Your task to perform on an android device: toggle wifi Image 0: 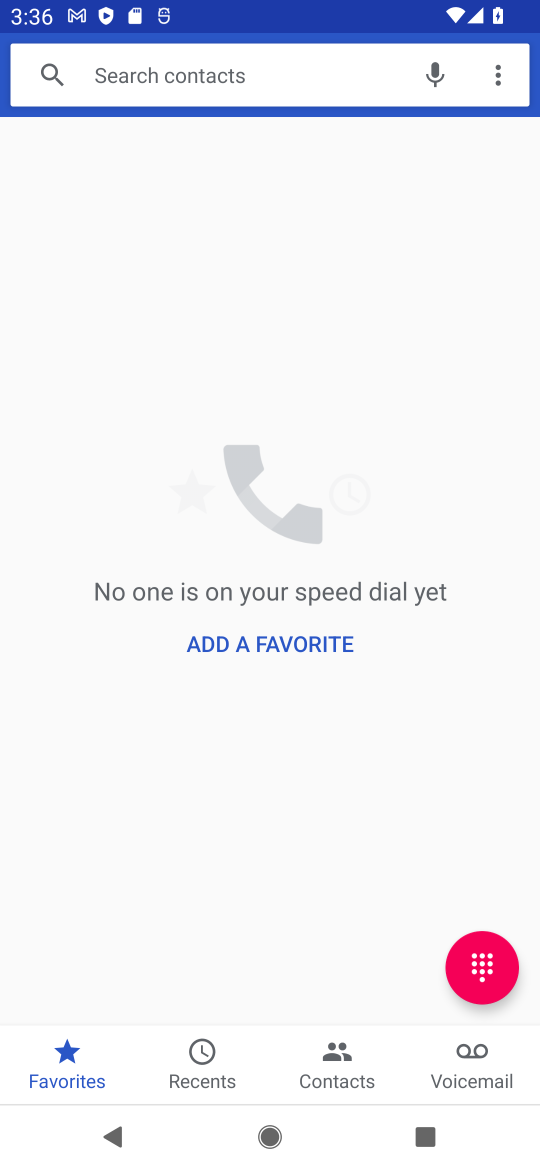
Step 0: press home button
Your task to perform on an android device: toggle wifi Image 1: 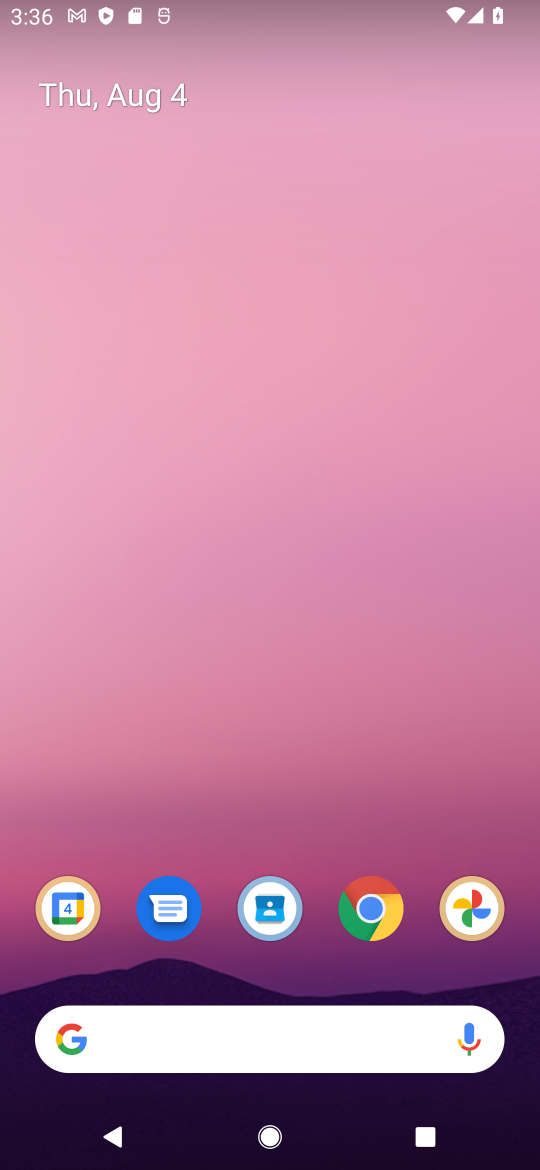
Step 1: drag from (322, 858) to (318, 0)
Your task to perform on an android device: toggle wifi Image 2: 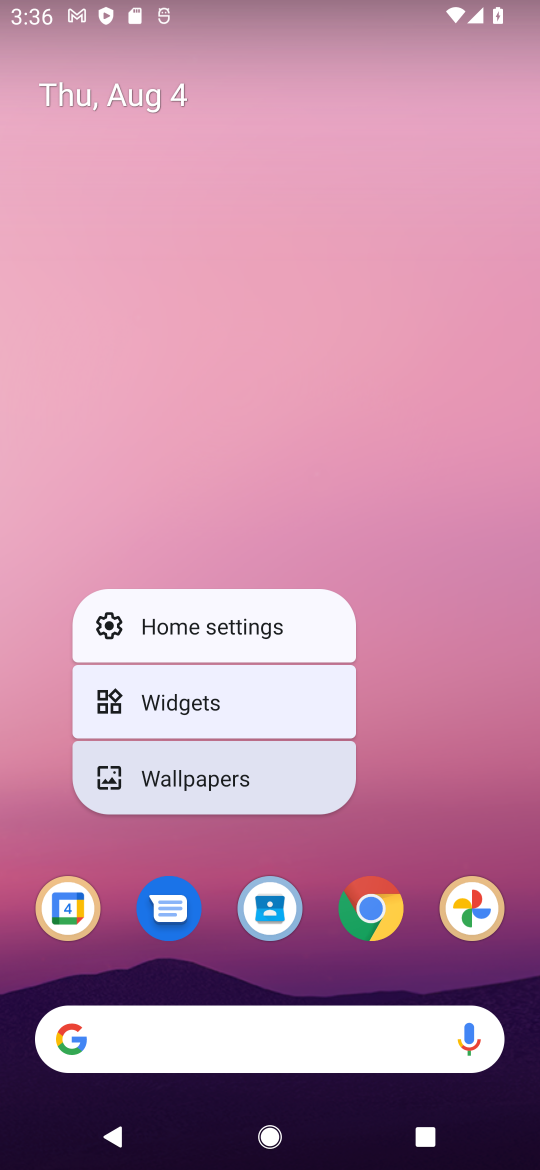
Step 2: click (401, 332)
Your task to perform on an android device: toggle wifi Image 3: 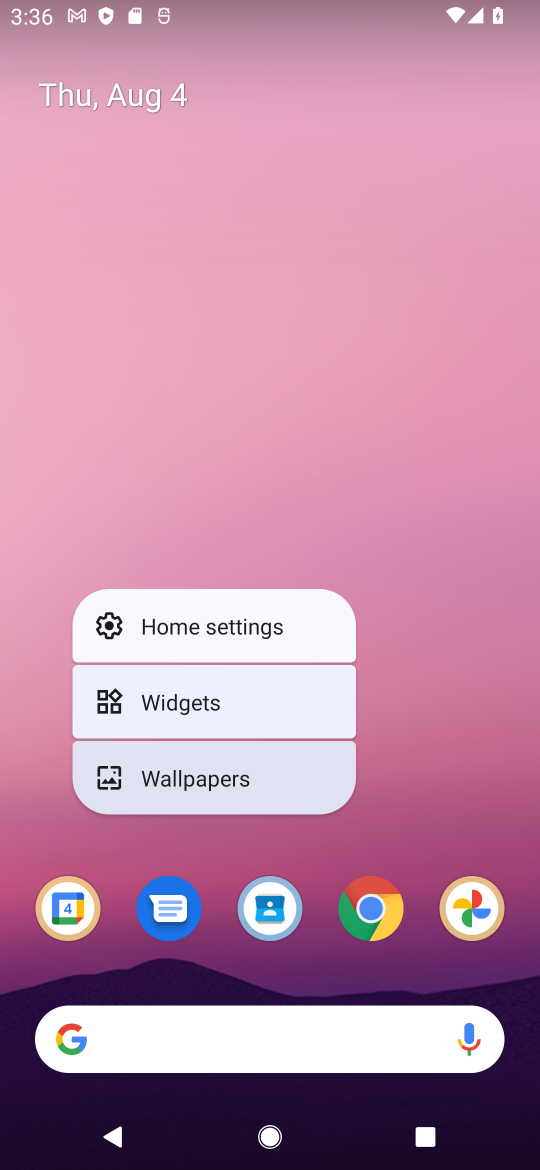
Step 3: click (401, 332)
Your task to perform on an android device: toggle wifi Image 4: 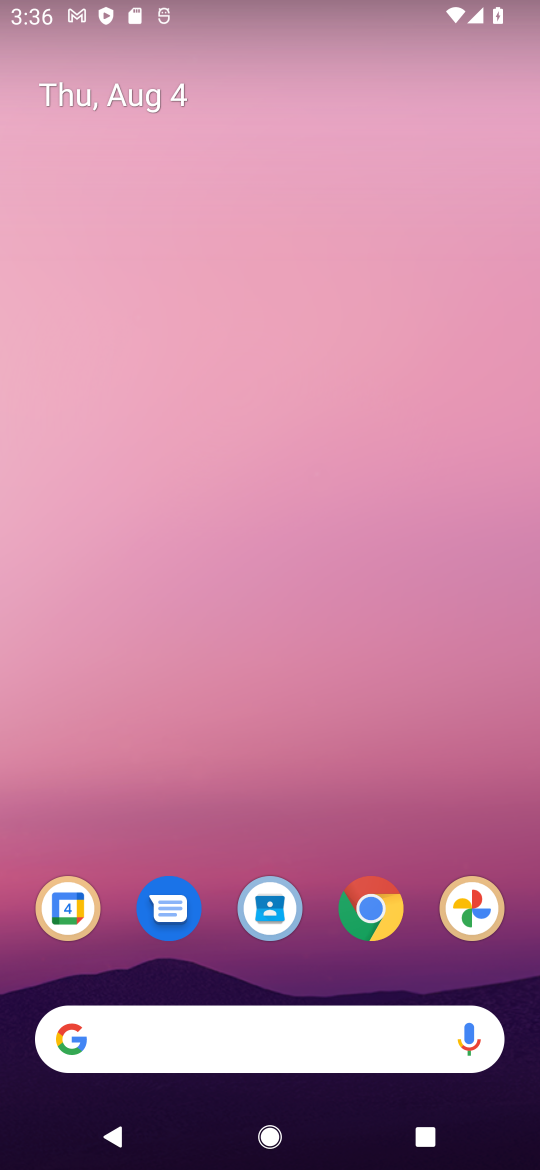
Step 4: drag from (355, 822) to (301, 213)
Your task to perform on an android device: toggle wifi Image 5: 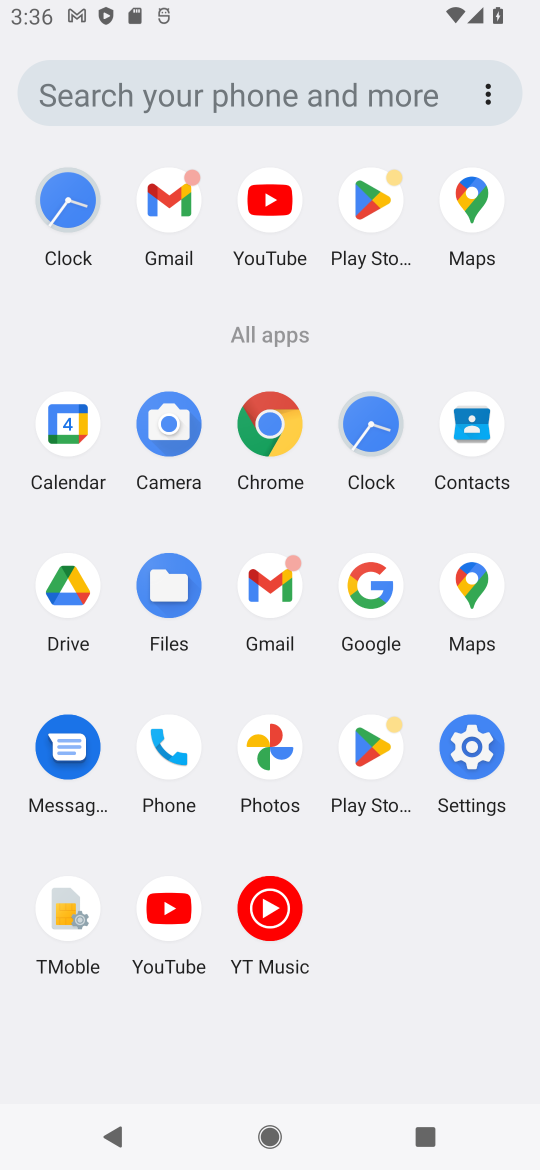
Step 5: click (455, 744)
Your task to perform on an android device: toggle wifi Image 6: 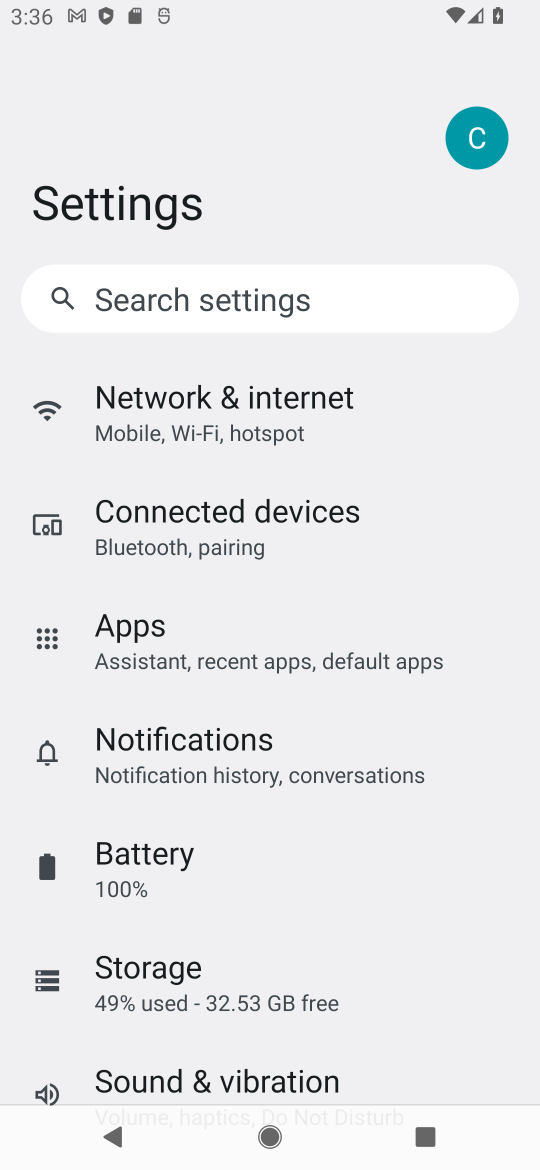
Step 6: click (289, 415)
Your task to perform on an android device: toggle wifi Image 7: 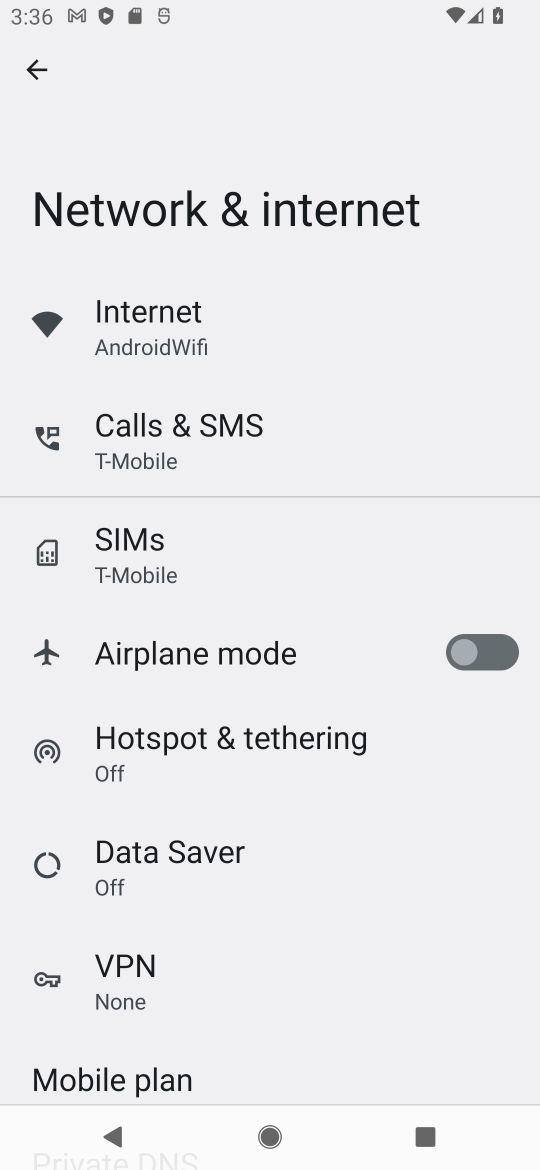
Step 7: click (317, 301)
Your task to perform on an android device: toggle wifi Image 8: 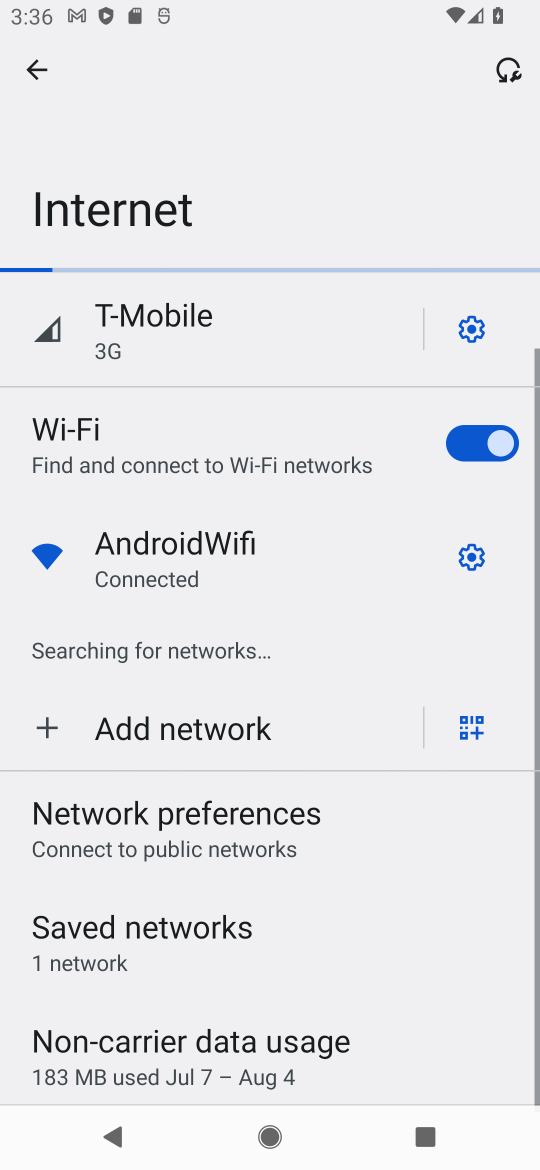
Step 8: click (471, 447)
Your task to perform on an android device: toggle wifi Image 9: 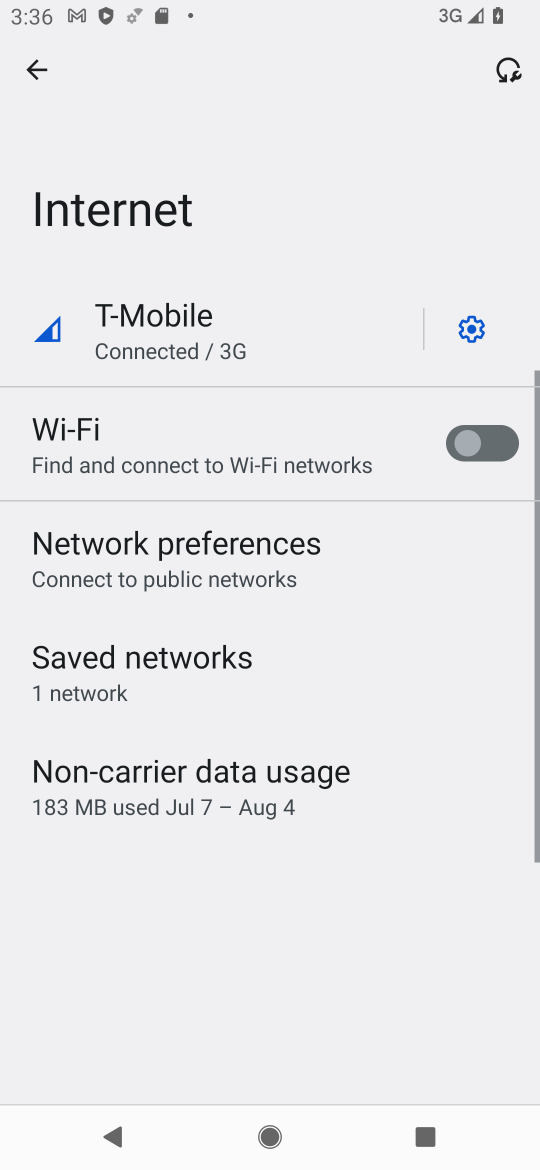
Step 9: task complete